Your task to perform on an android device: add a label to a message in the gmail app Image 0: 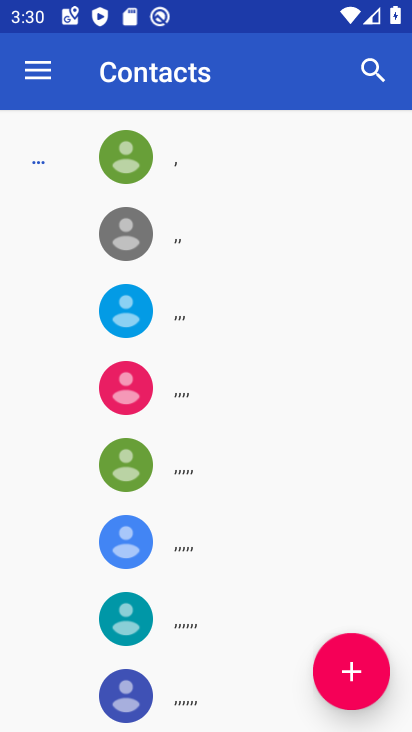
Step 0: press home button
Your task to perform on an android device: add a label to a message in the gmail app Image 1: 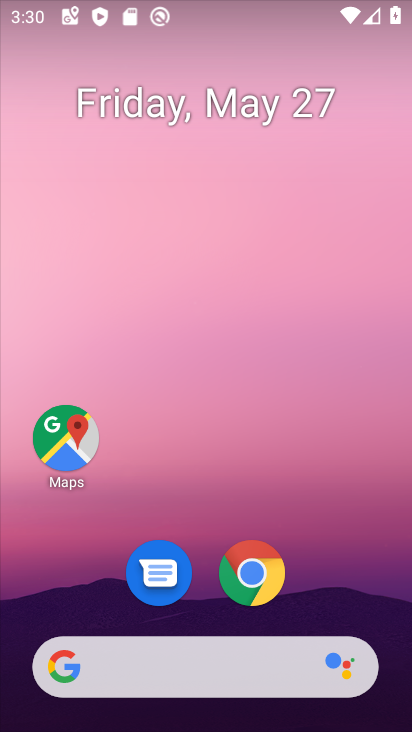
Step 1: drag from (267, 468) to (255, 0)
Your task to perform on an android device: add a label to a message in the gmail app Image 2: 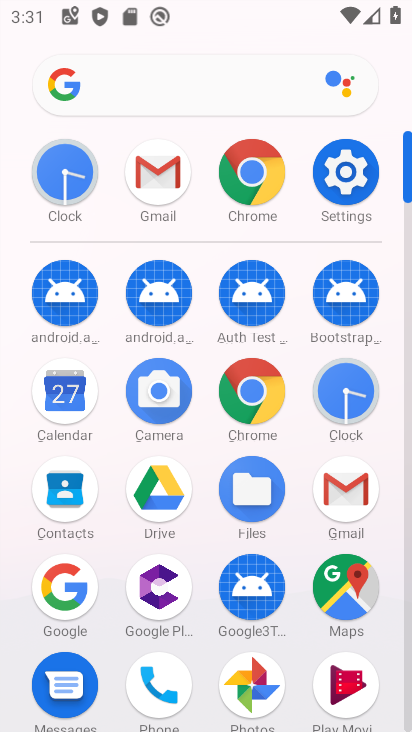
Step 2: click (157, 173)
Your task to perform on an android device: add a label to a message in the gmail app Image 3: 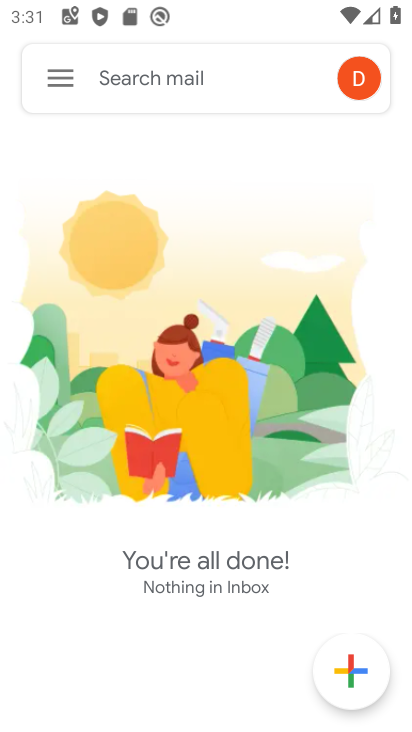
Step 3: click (63, 74)
Your task to perform on an android device: add a label to a message in the gmail app Image 4: 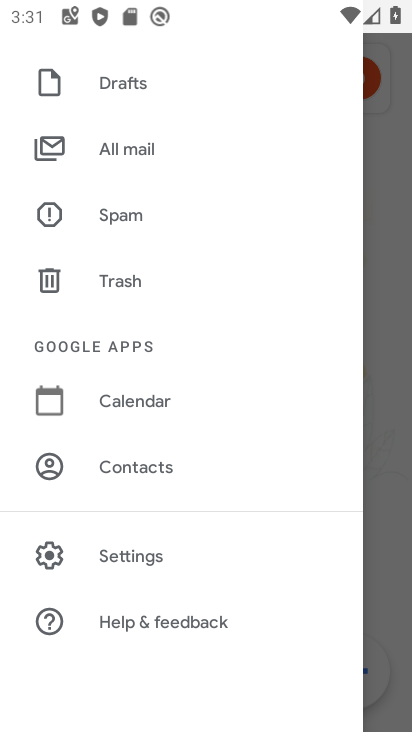
Step 4: click (104, 145)
Your task to perform on an android device: add a label to a message in the gmail app Image 5: 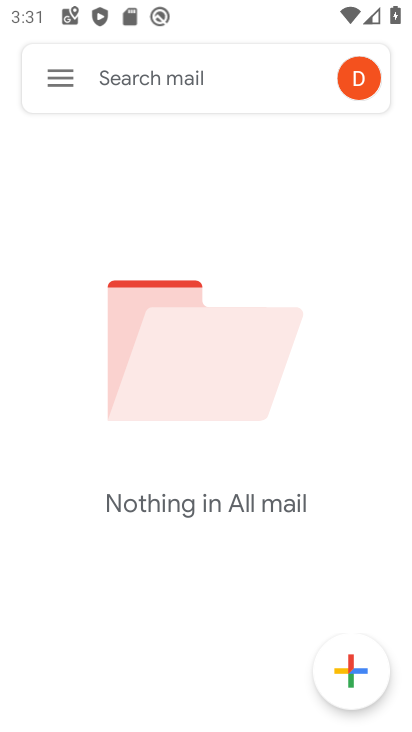
Step 5: task complete